Your task to perform on an android device: Play the last video I watched on Youtube Image 0: 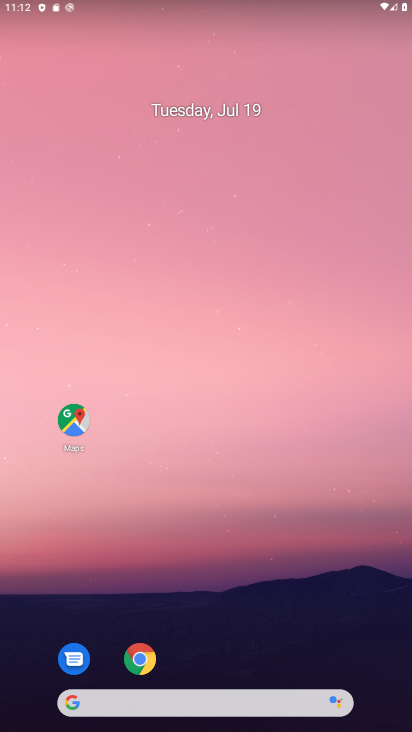
Step 0: press home button
Your task to perform on an android device: Play the last video I watched on Youtube Image 1: 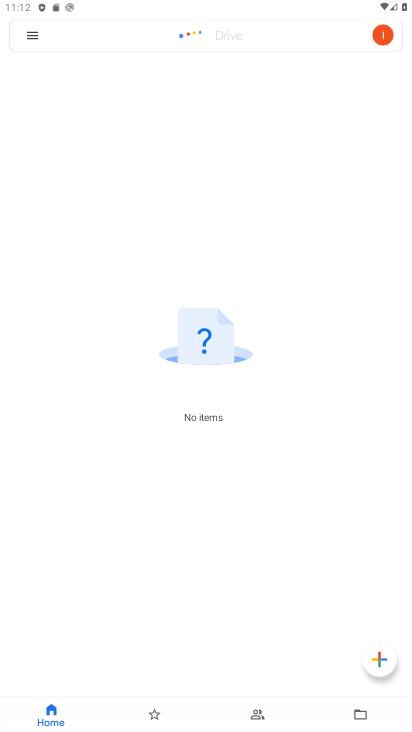
Step 1: drag from (223, 362) to (233, 16)
Your task to perform on an android device: Play the last video I watched on Youtube Image 2: 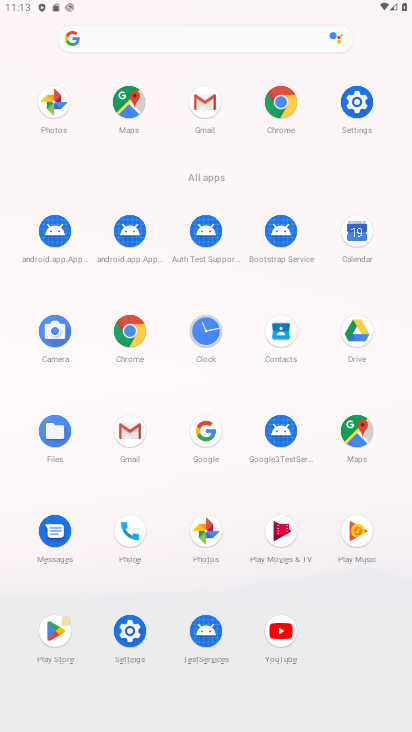
Step 2: click (277, 621)
Your task to perform on an android device: Play the last video I watched on Youtube Image 3: 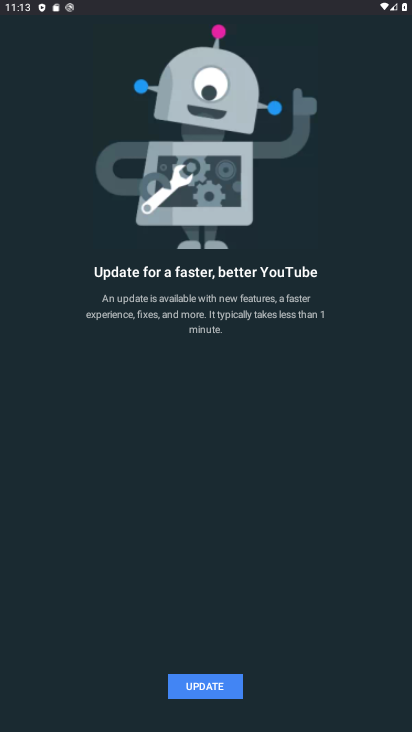
Step 3: click (205, 676)
Your task to perform on an android device: Play the last video I watched on Youtube Image 4: 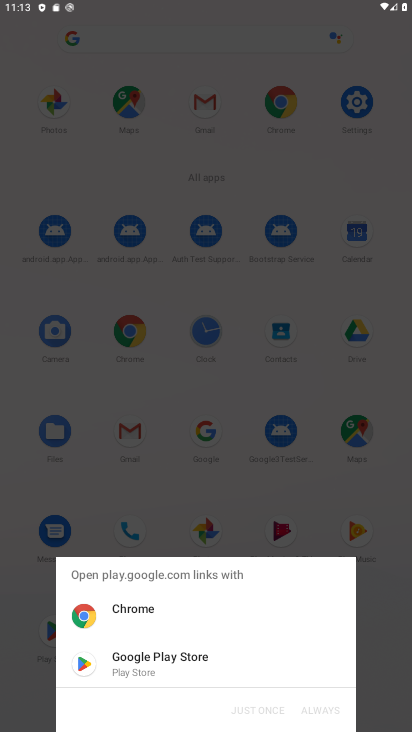
Step 4: click (135, 662)
Your task to perform on an android device: Play the last video I watched on Youtube Image 5: 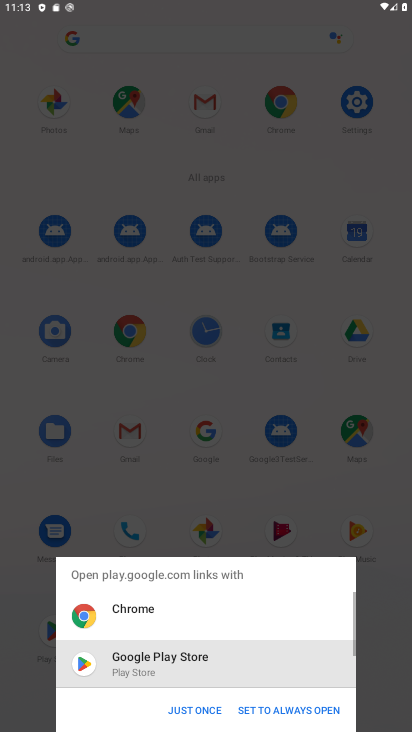
Step 5: click (195, 706)
Your task to perform on an android device: Play the last video I watched on Youtube Image 6: 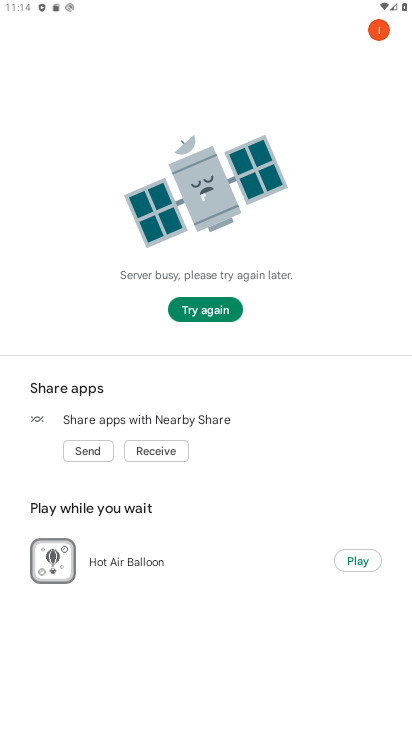
Step 6: click (201, 305)
Your task to perform on an android device: Play the last video I watched on Youtube Image 7: 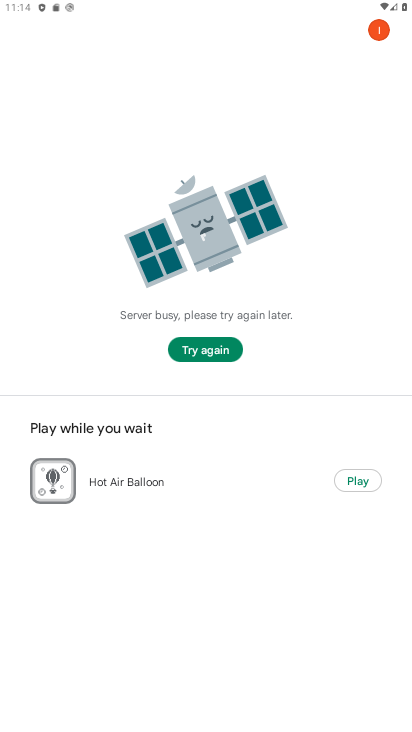
Step 7: task complete